Your task to perform on an android device: Open Google Chrome and open the bookmarks view Image 0: 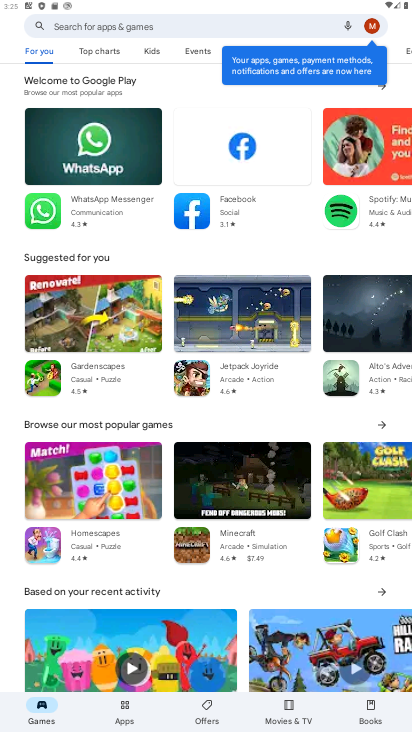
Step 0: press home button
Your task to perform on an android device: Open Google Chrome and open the bookmarks view Image 1: 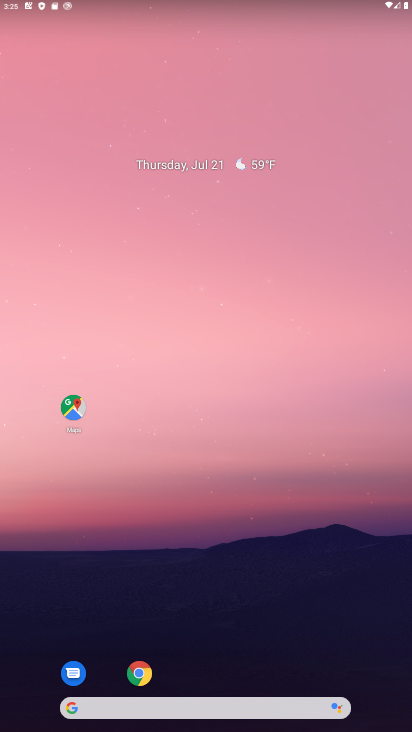
Step 1: drag from (368, 641) to (166, 0)
Your task to perform on an android device: Open Google Chrome and open the bookmarks view Image 2: 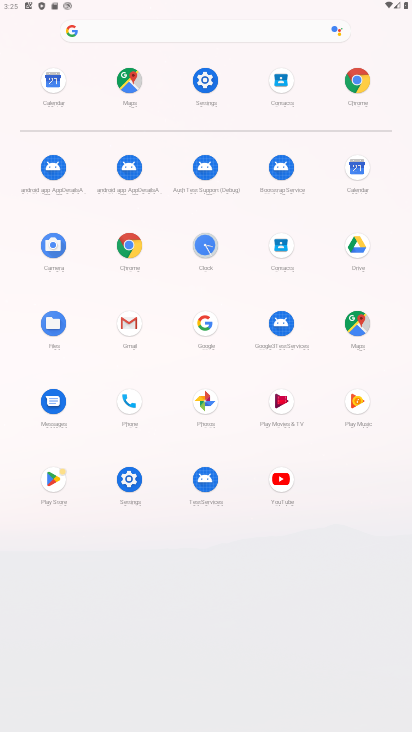
Step 2: click (124, 260)
Your task to perform on an android device: Open Google Chrome and open the bookmarks view Image 3: 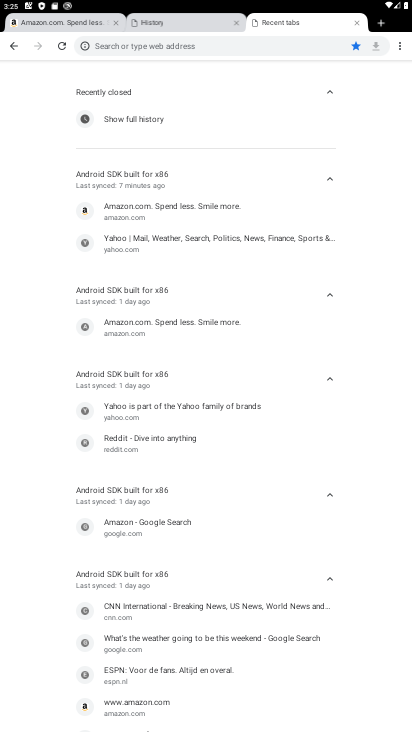
Step 3: click (411, 43)
Your task to perform on an android device: Open Google Chrome and open the bookmarks view Image 4: 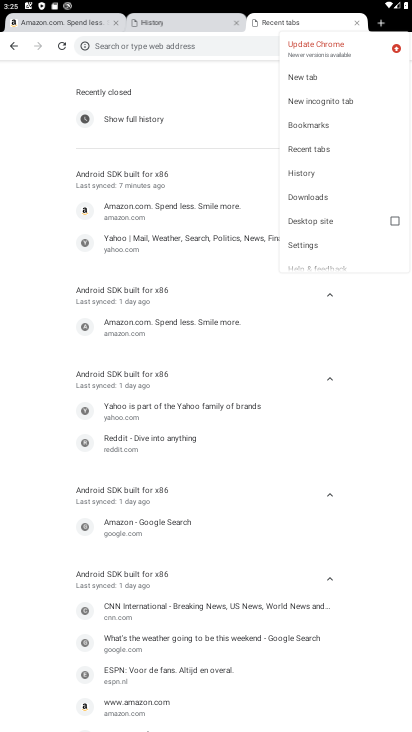
Step 4: click (335, 128)
Your task to perform on an android device: Open Google Chrome and open the bookmarks view Image 5: 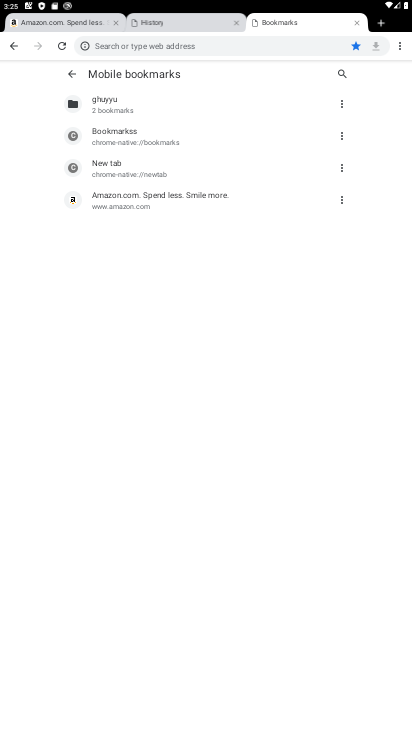
Step 5: task complete